Your task to perform on an android device: Show me popular videos on Youtube Image 0: 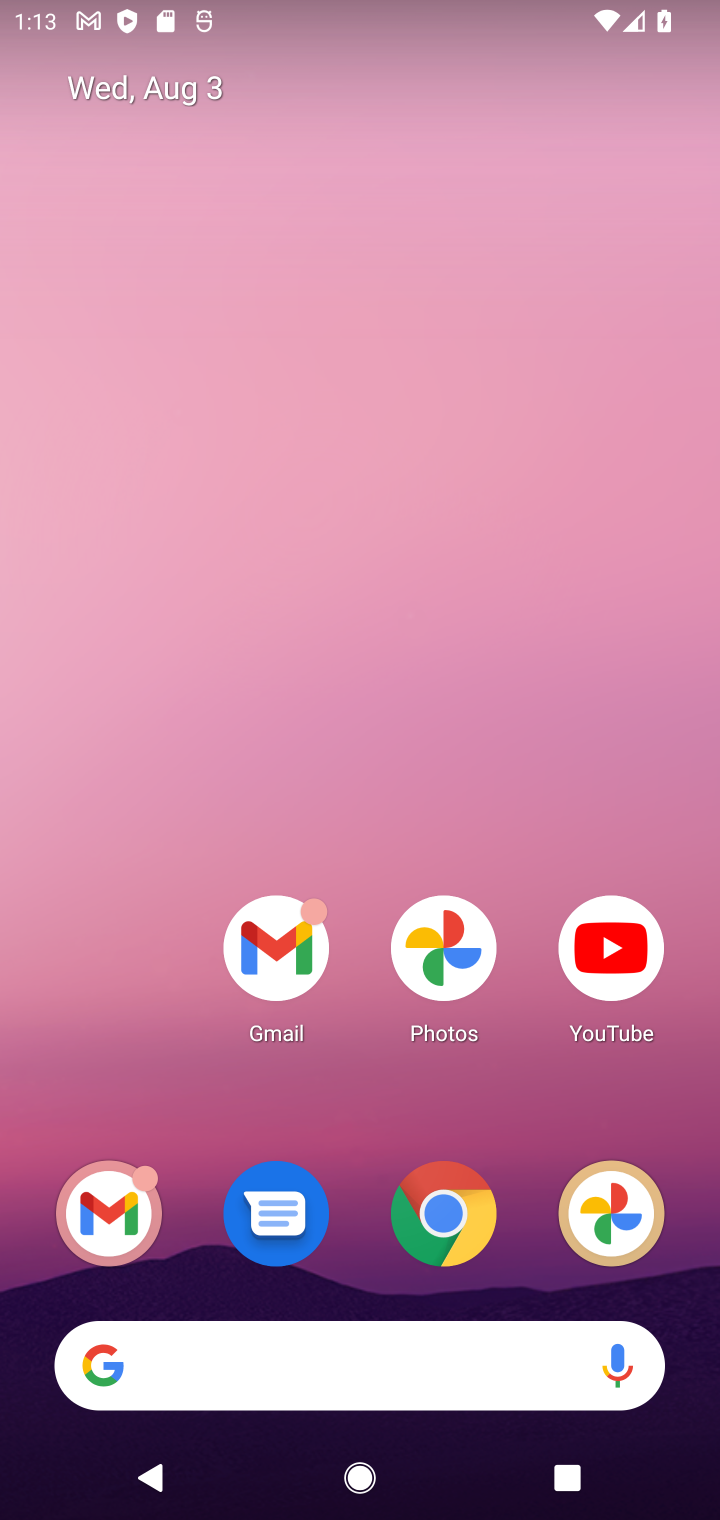
Step 0: drag from (456, 1163) to (718, 1314)
Your task to perform on an android device: Show me popular videos on Youtube Image 1: 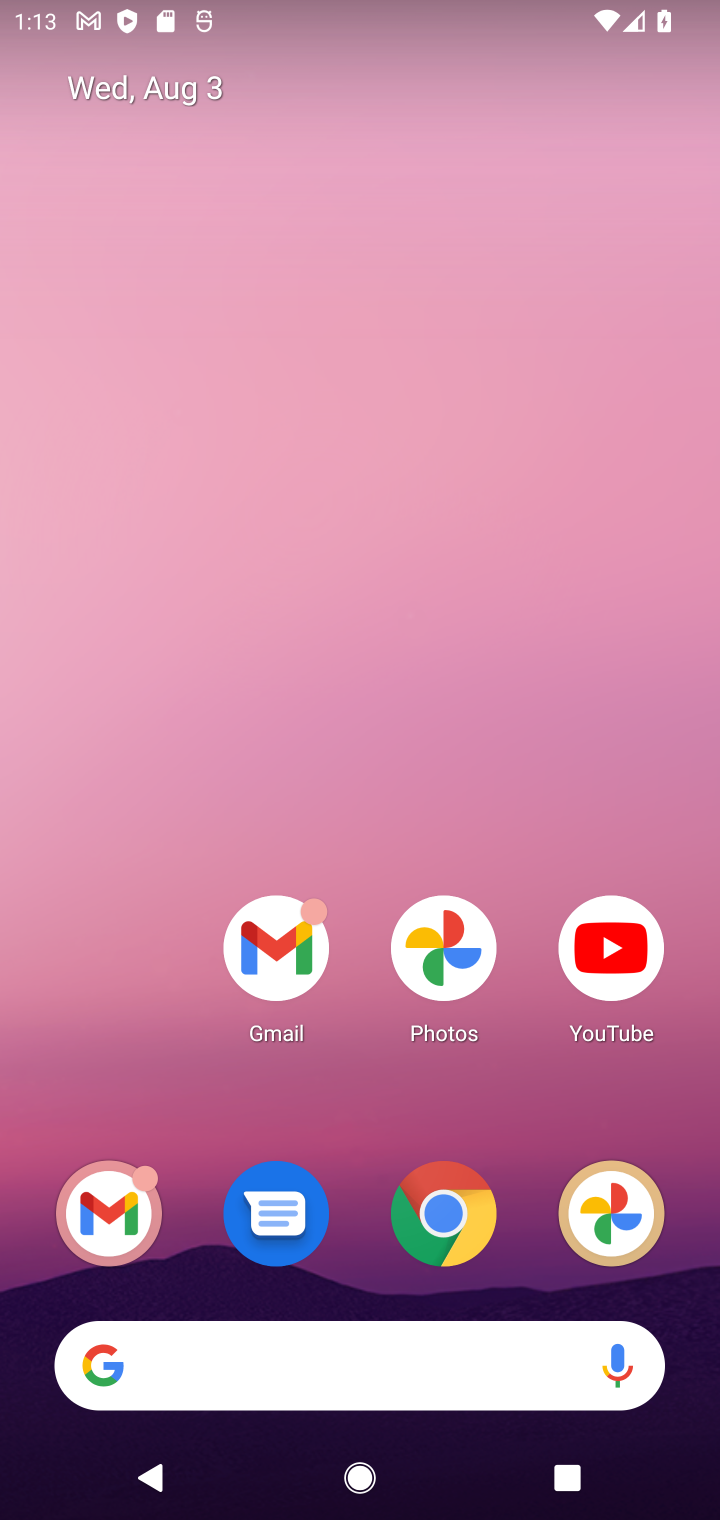
Step 1: drag from (389, 1314) to (516, 7)
Your task to perform on an android device: Show me popular videos on Youtube Image 2: 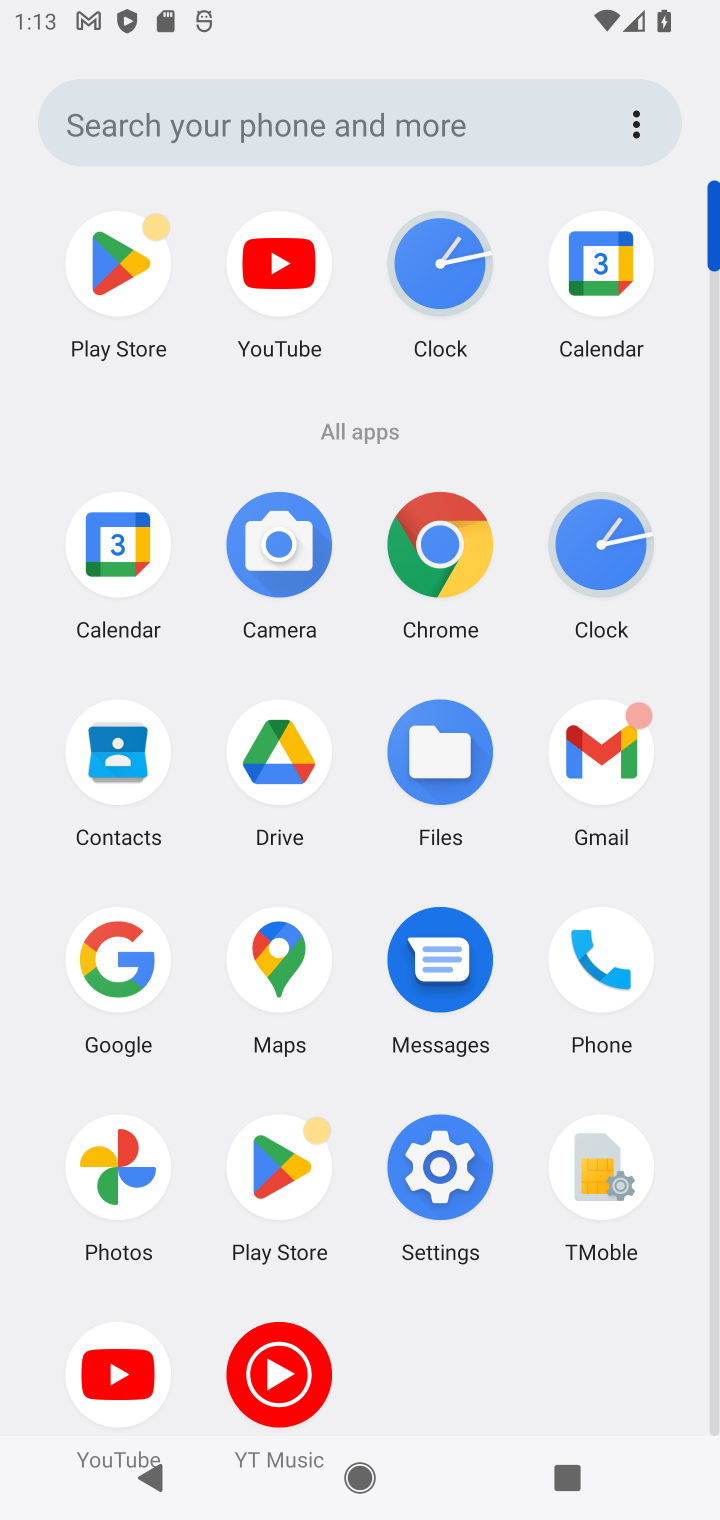
Step 2: click (134, 1375)
Your task to perform on an android device: Show me popular videos on Youtube Image 3: 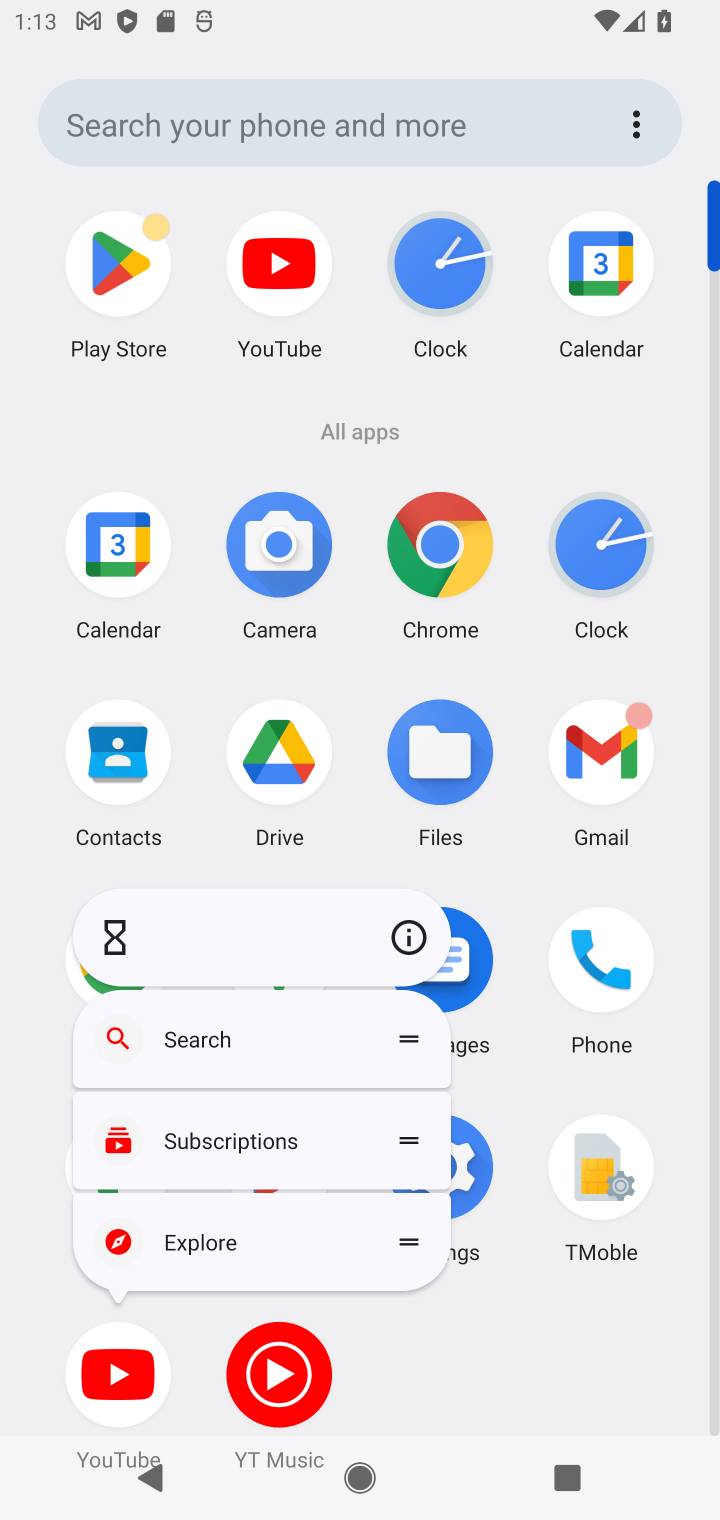
Step 3: click (136, 1370)
Your task to perform on an android device: Show me popular videos on Youtube Image 4: 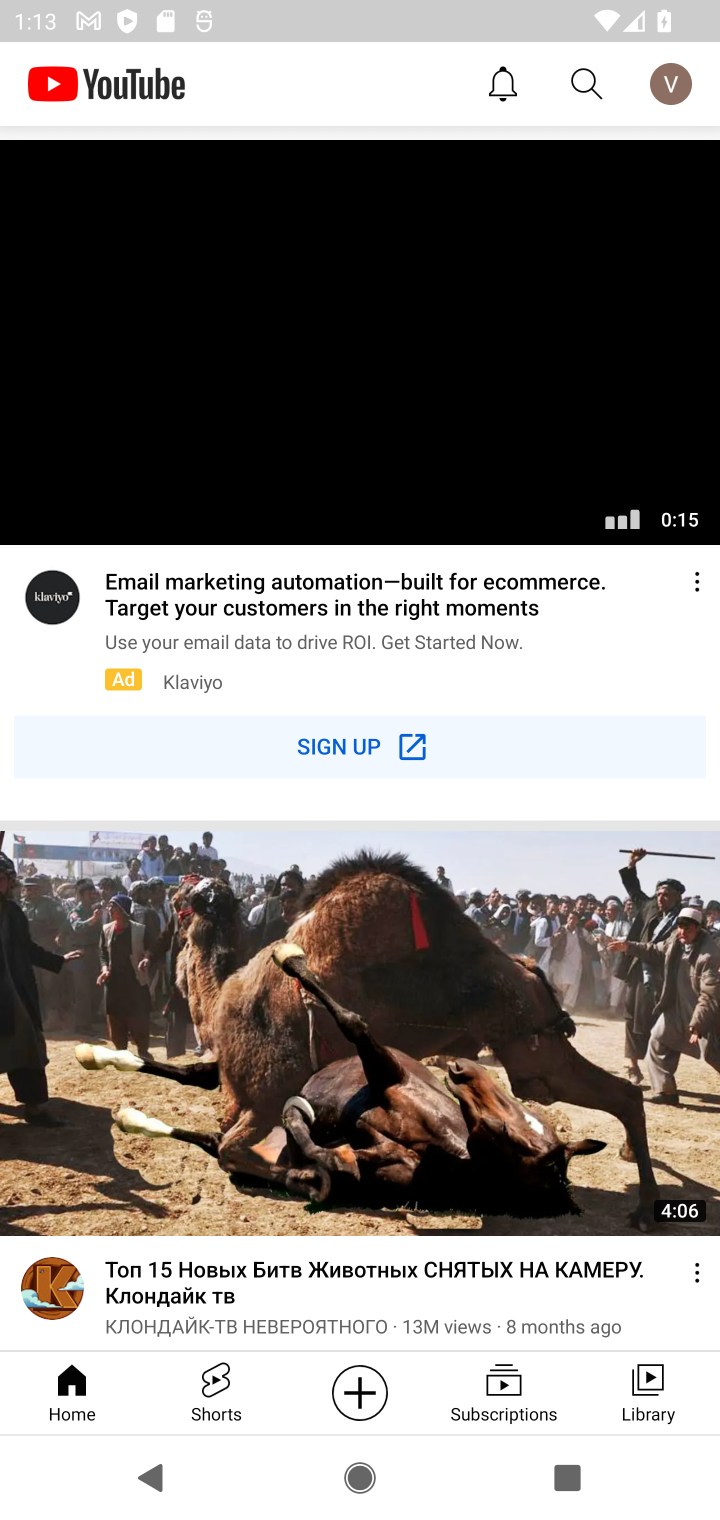
Step 4: task complete